Your task to perform on an android device: turn off notifications settings in the gmail app Image 0: 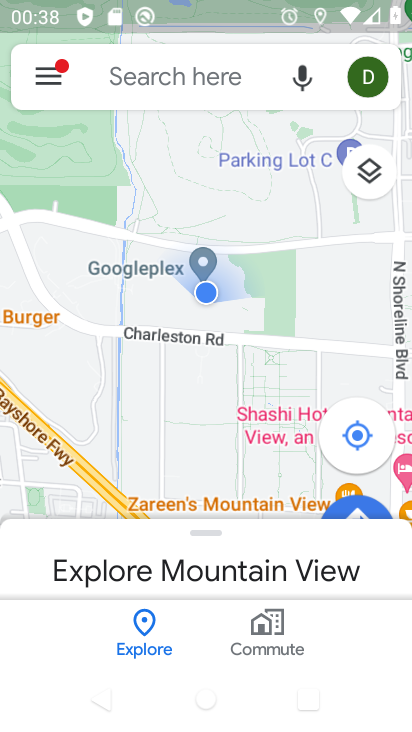
Step 0: press home button
Your task to perform on an android device: turn off notifications settings in the gmail app Image 1: 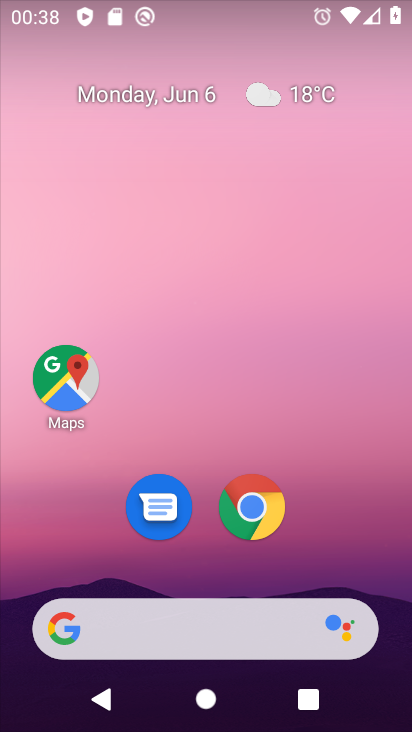
Step 1: drag from (204, 587) to (248, 140)
Your task to perform on an android device: turn off notifications settings in the gmail app Image 2: 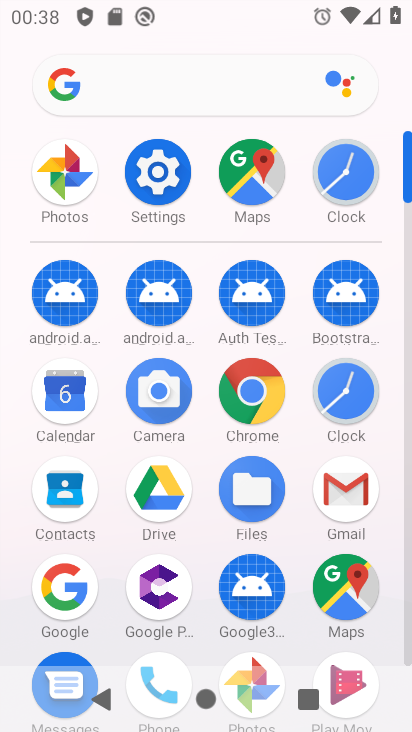
Step 2: click (333, 492)
Your task to perform on an android device: turn off notifications settings in the gmail app Image 3: 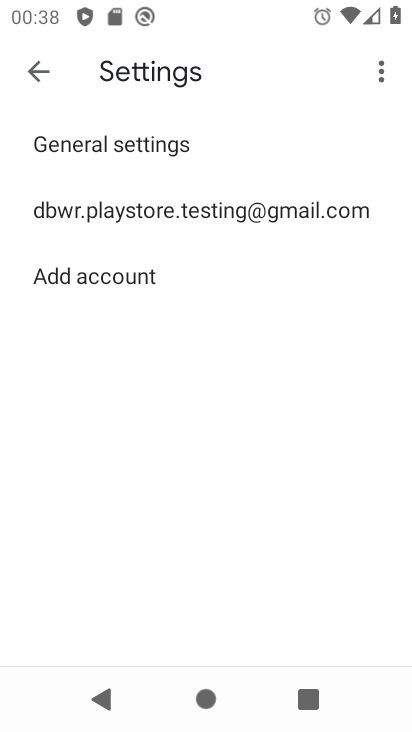
Step 3: click (143, 146)
Your task to perform on an android device: turn off notifications settings in the gmail app Image 4: 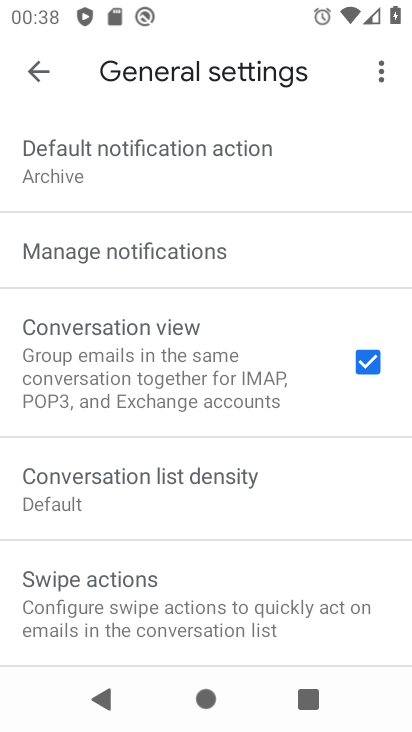
Step 4: click (177, 257)
Your task to perform on an android device: turn off notifications settings in the gmail app Image 5: 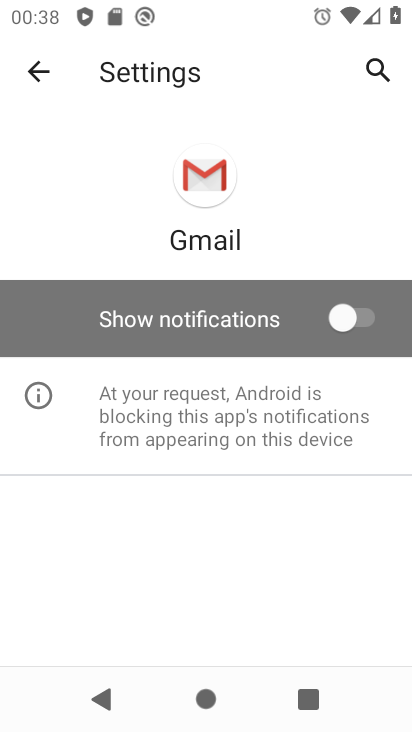
Step 5: task complete